Your task to perform on an android device: turn on the 12-hour format for clock Image 0: 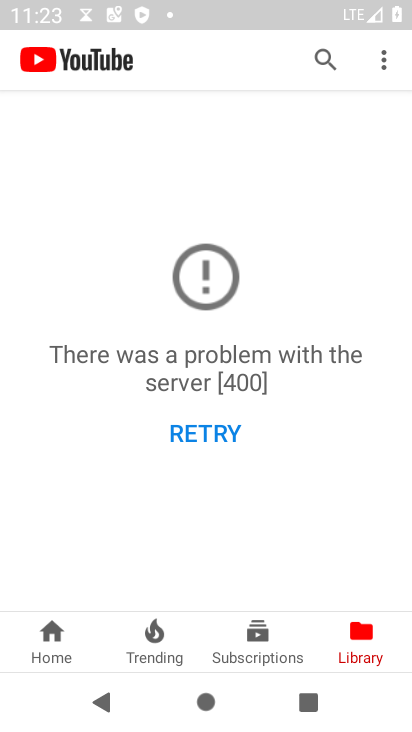
Step 0: press home button
Your task to perform on an android device: turn on the 12-hour format for clock Image 1: 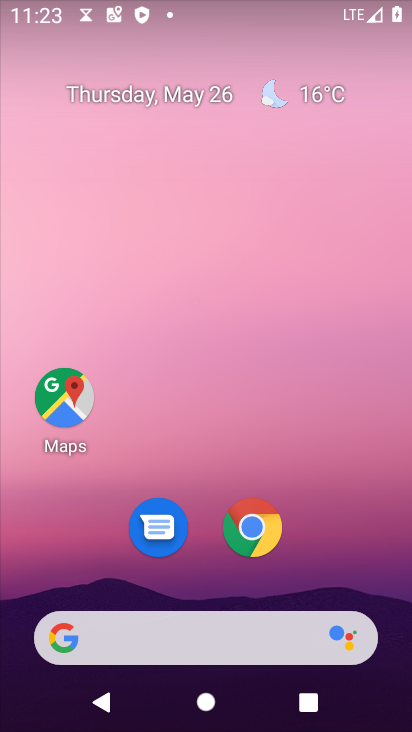
Step 1: drag from (291, 578) to (249, 0)
Your task to perform on an android device: turn on the 12-hour format for clock Image 2: 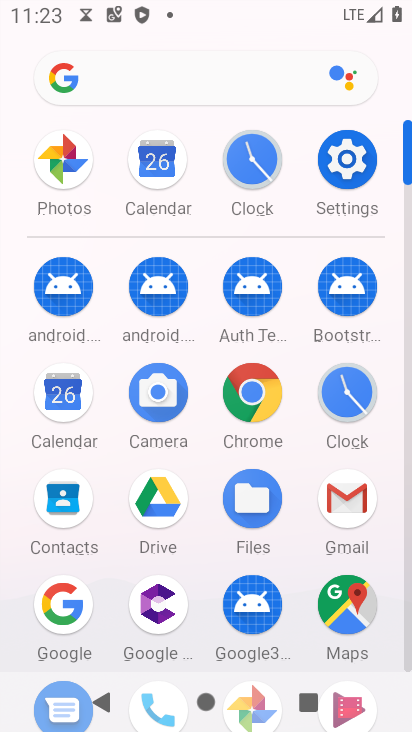
Step 2: click (338, 401)
Your task to perform on an android device: turn on the 12-hour format for clock Image 3: 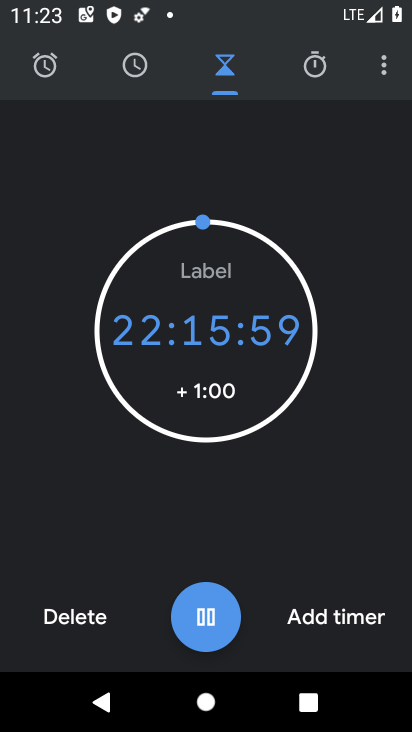
Step 3: click (384, 64)
Your task to perform on an android device: turn on the 12-hour format for clock Image 4: 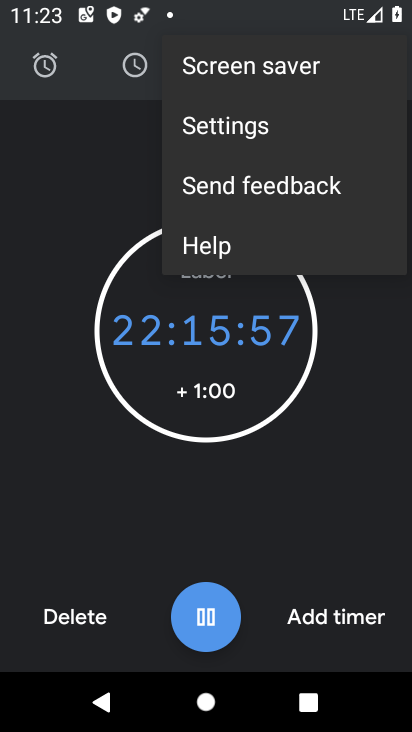
Step 4: click (257, 122)
Your task to perform on an android device: turn on the 12-hour format for clock Image 5: 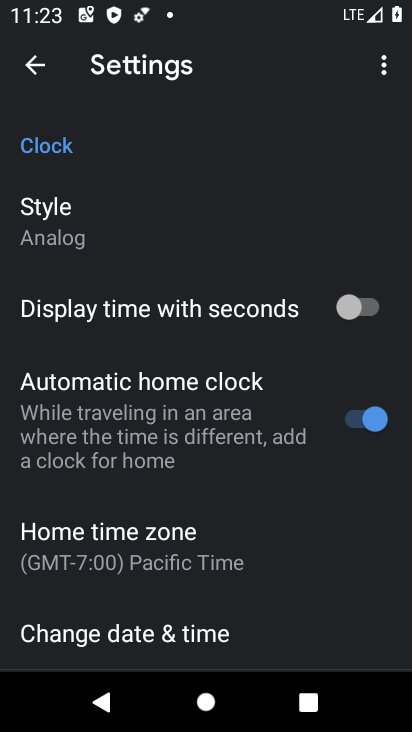
Step 5: click (199, 630)
Your task to perform on an android device: turn on the 12-hour format for clock Image 6: 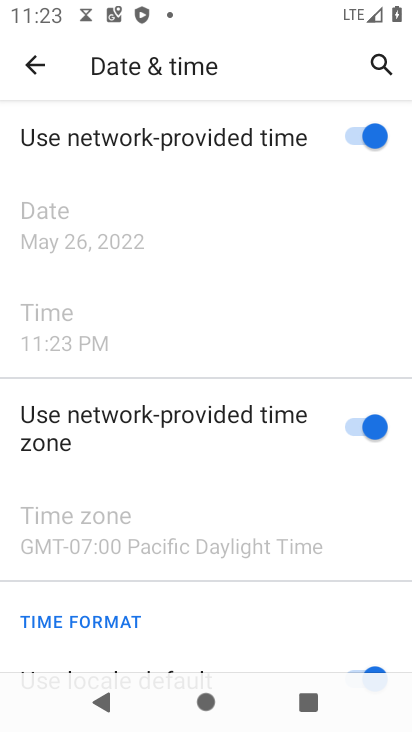
Step 6: task complete